Your task to perform on an android device: Search for pizza restaurants on Maps Image 0: 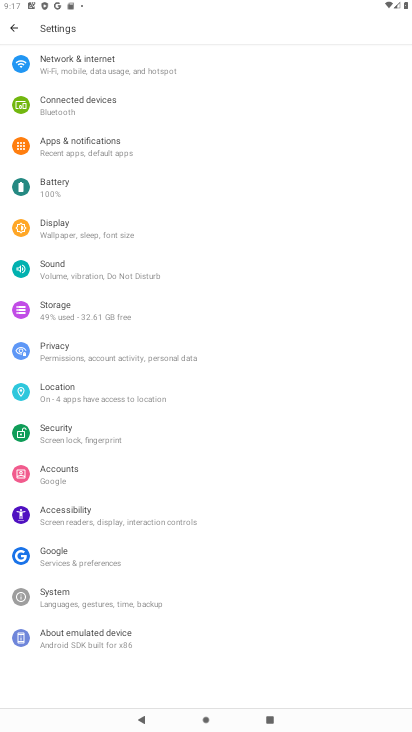
Step 0: press home button
Your task to perform on an android device: Search for pizza restaurants on Maps Image 1: 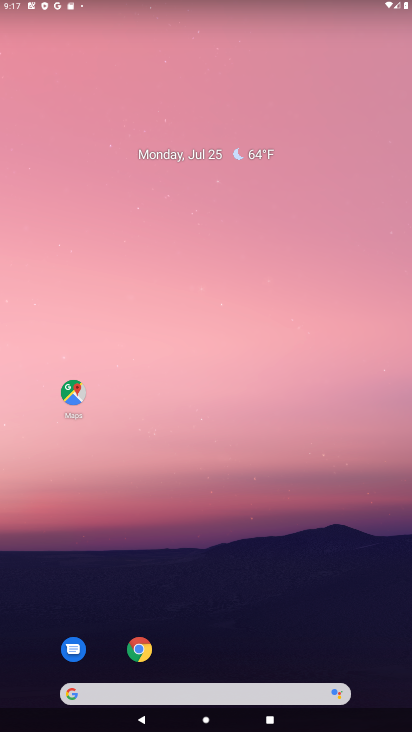
Step 1: click (71, 391)
Your task to perform on an android device: Search for pizza restaurants on Maps Image 2: 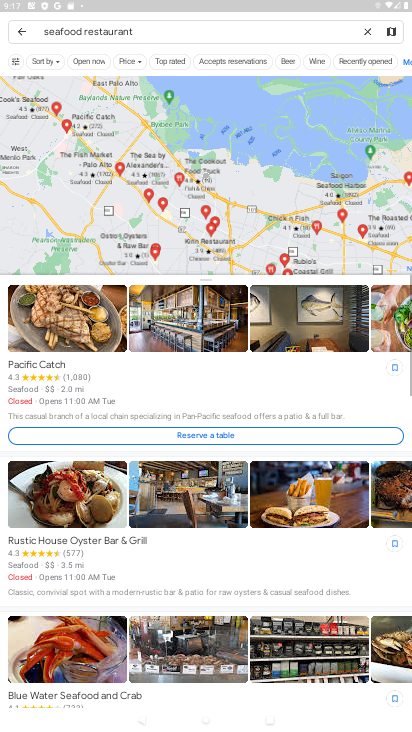
Step 2: click (360, 28)
Your task to perform on an android device: Search for pizza restaurants on Maps Image 3: 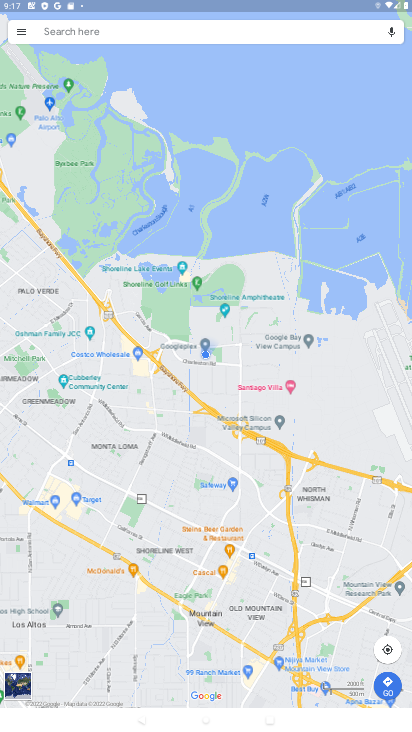
Step 3: click (141, 38)
Your task to perform on an android device: Search for pizza restaurants on Maps Image 4: 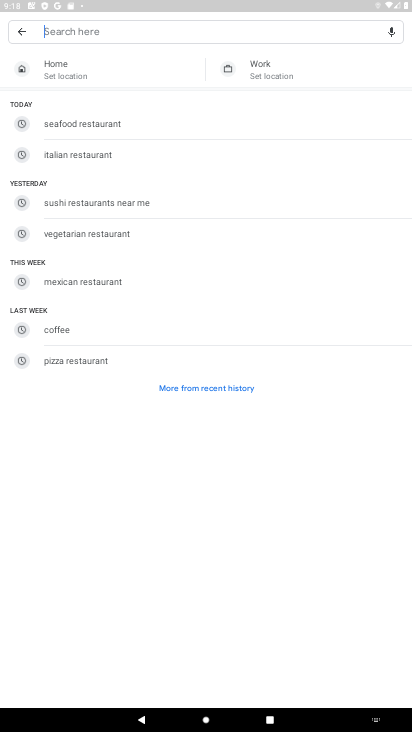
Step 4: click (69, 357)
Your task to perform on an android device: Search for pizza restaurants on Maps Image 5: 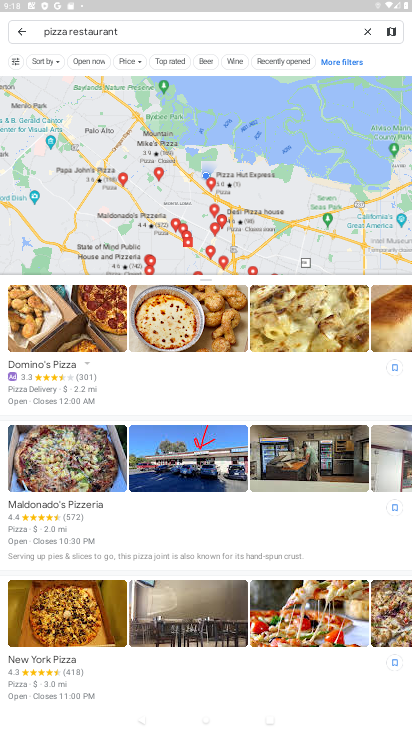
Step 5: task complete